Your task to perform on an android device: clear history in the chrome app Image 0: 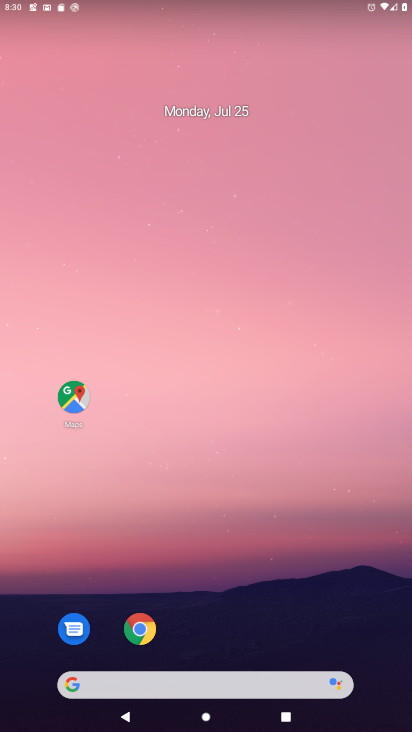
Step 0: click (141, 629)
Your task to perform on an android device: clear history in the chrome app Image 1: 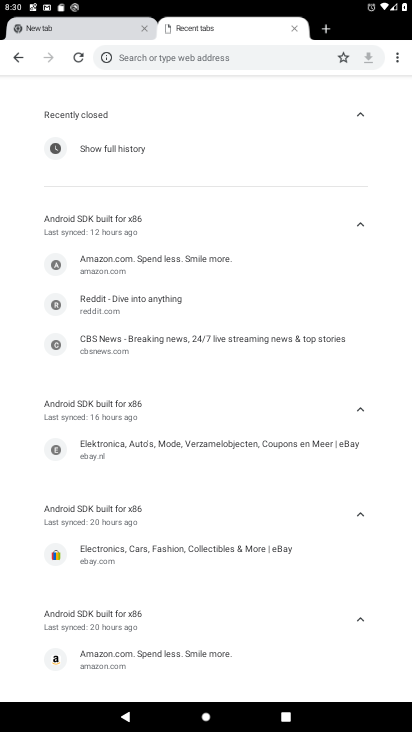
Step 1: click (397, 55)
Your task to perform on an android device: clear history in the chrome app Image 2: 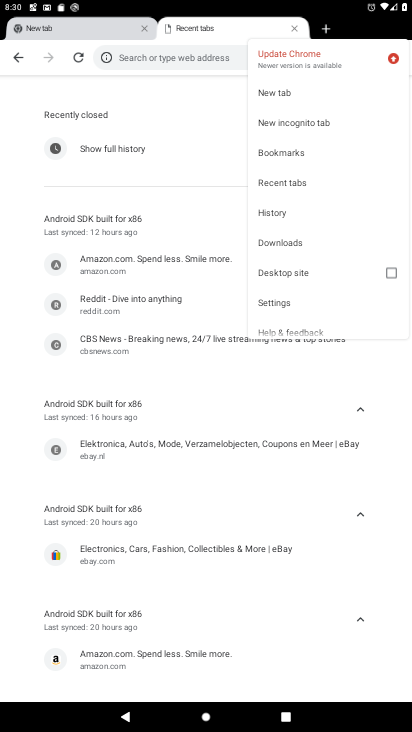
Step 2: click (276, 212)
Your task to perform on an android device: clear history in the chrome app Image 3: 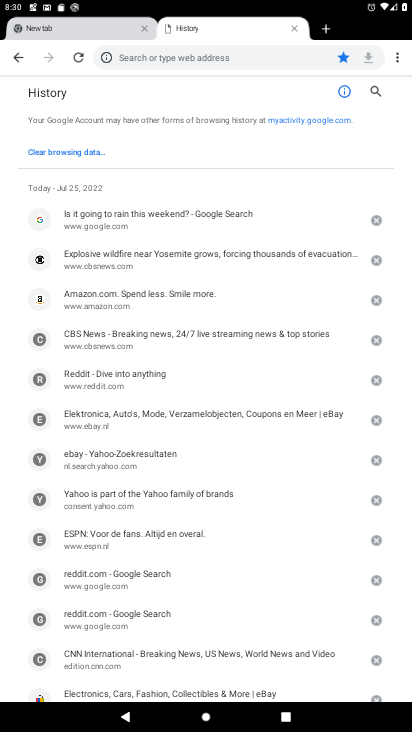
Step 3: click (85, 152)
Your task to perform on an android device: clear history in the chrome app Image 4: 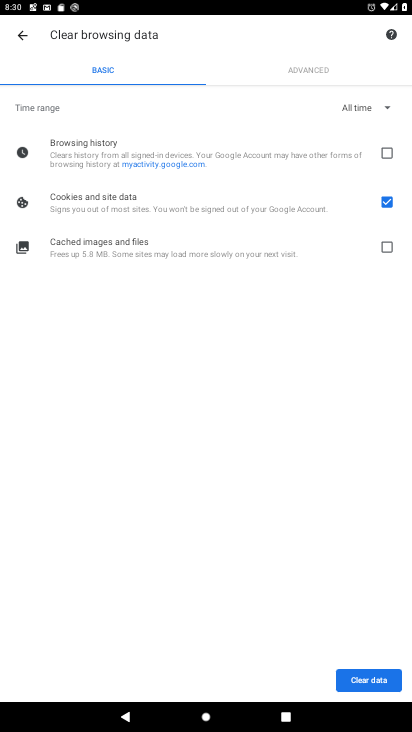
Step 4: click (387, 153)
Your task to perform on an android device: clear history in the chrome app Image 5: 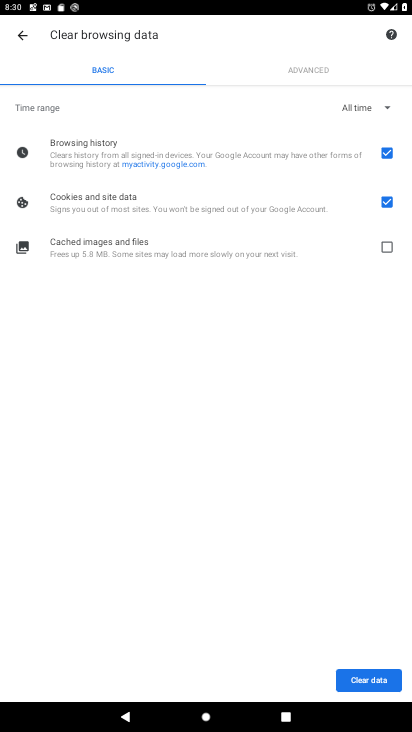
Step 5: click (388, 255)
Your task to perform on an android device: clear history in the chrome app Image 6: 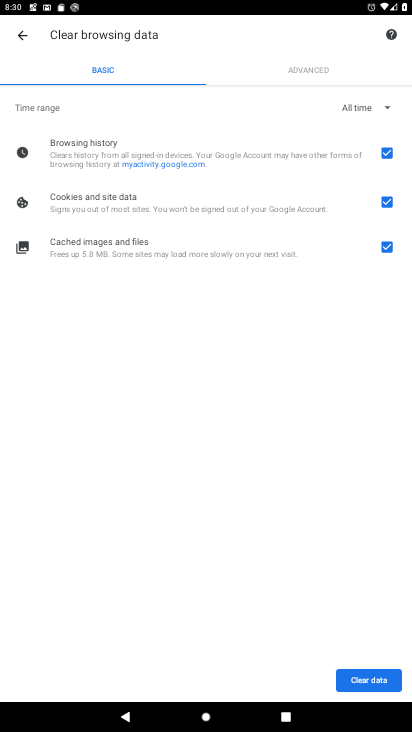
Step 6: click (370, 681)
Your task to perform on an android device: clear history in the chrome app Image 7: 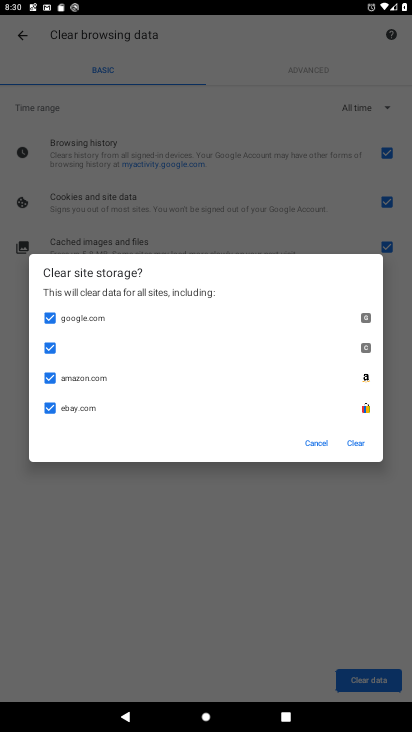
Step 7: click (359, 443)
Your task to perform on an android device: clear history in the chrome app Image 8: 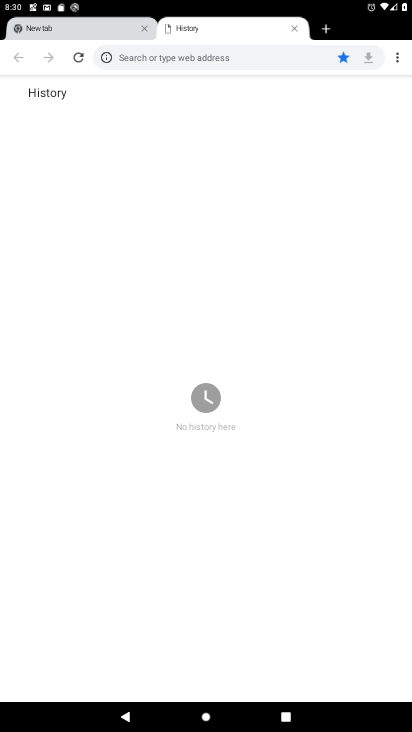
Step 8: task complete